Your task to perform on an android device: turn smart compose on in the gmail app Image 0: 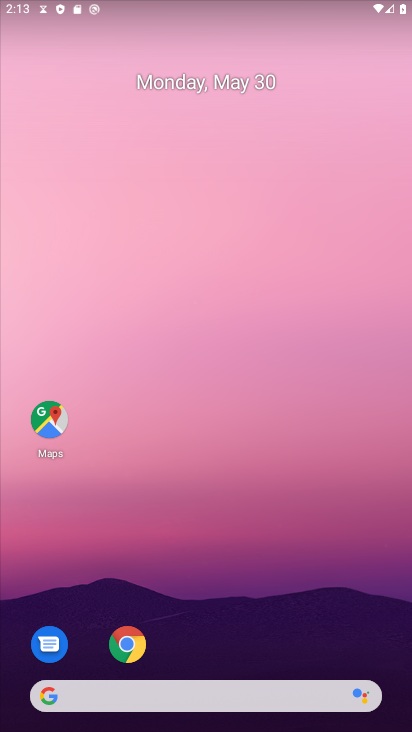
Step 0: drag from (259, 586) to (170, 185)
Your task to perform on an android device: turn smart compose on in the gmail app Image 1: 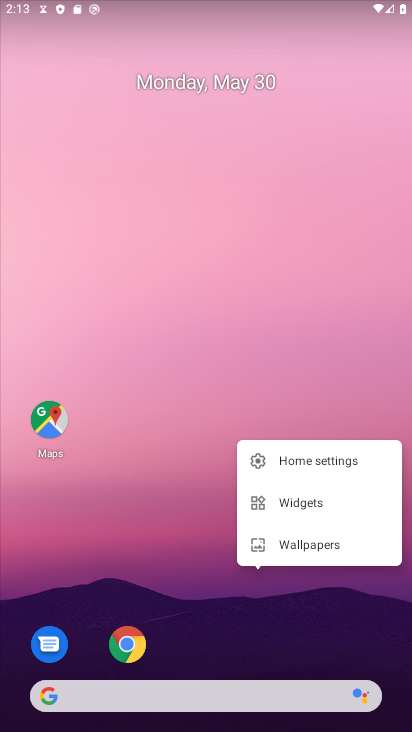
Step 1: drag from (196, 595) to (187, 104)
Your task to perform on an android device: turn smart compose on in the gmail app Image 2: 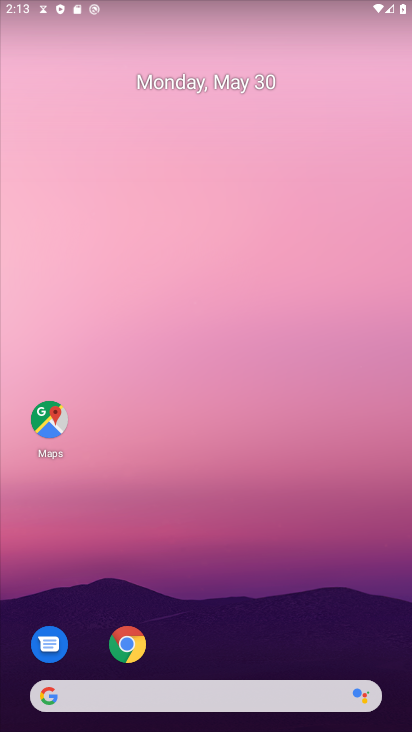
Step 2: drag from (258, 654) to (194, 263)
Your task to perform on an android device: turn smart compose on in the gmail app Image 3: 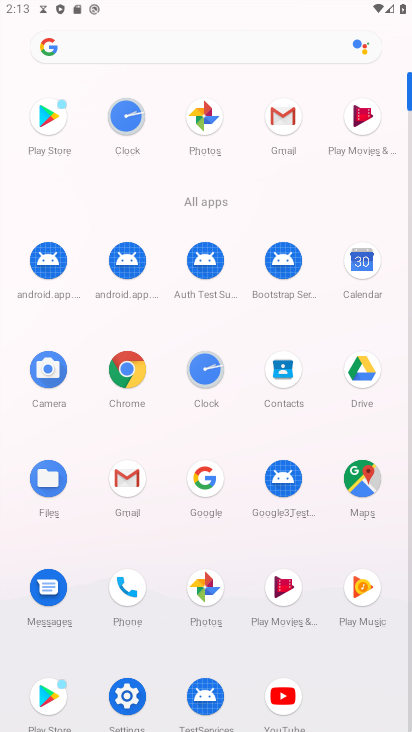
Step 3: click (276, 116)
Your task to perform on an android device: turn smart compose on in the gmail app Image 4: 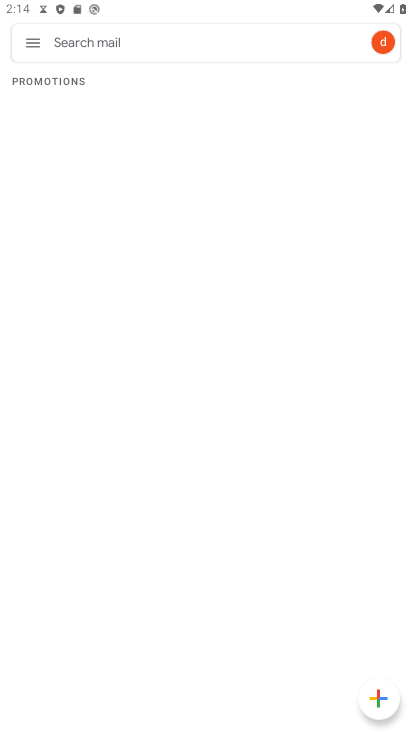
Step 4: click (21, 39)
Your task to perform on an android device: turn smart compose on in the gmail app Image 5: 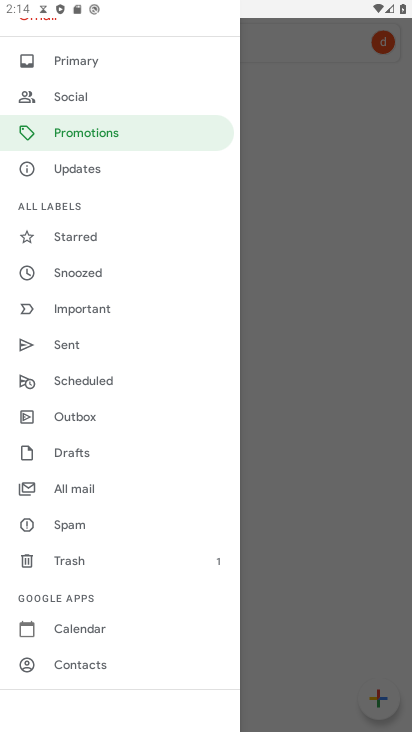
Step 5: drag from (155, 612) to (96, 317)
Your task to perform on an android device: turn smart compose on in the gmail app Image 6: 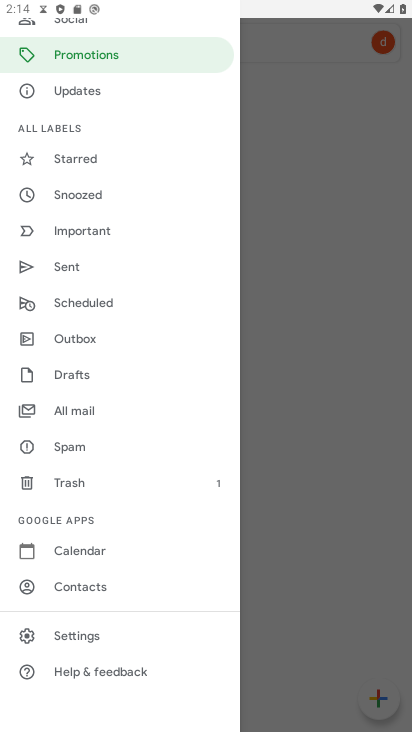
Step 6: click (89, 635)
Your task to perform on an android device: turn smart compose on in the gmail app Image 7: 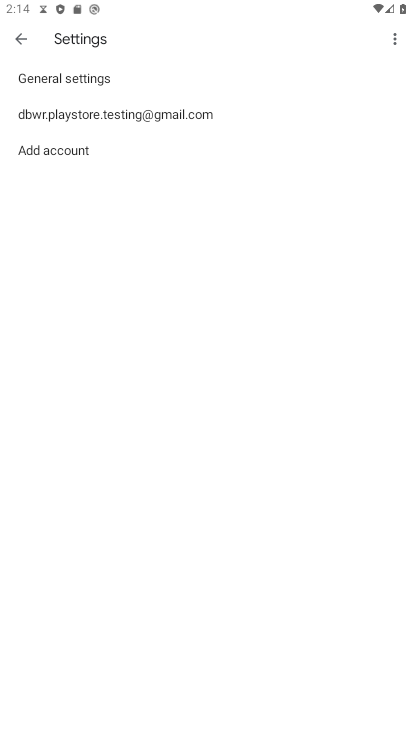
Step 7: click (79, 106)
Your task to perform on an android device: turn smart compose on in the gmail app Image 8: 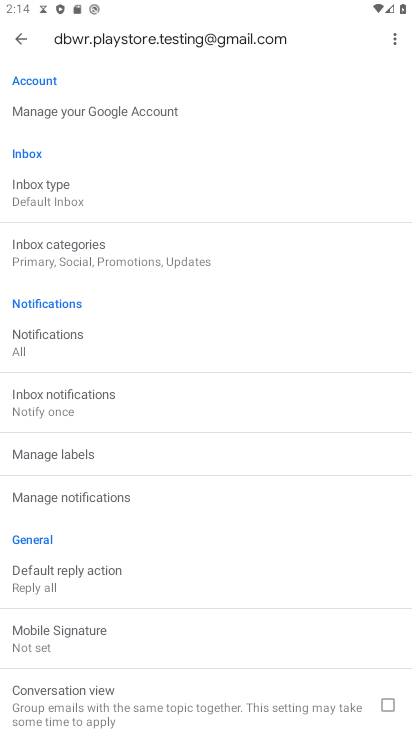
Step 8: task complete